Your task to perform on an android device: change the clock display to analog Image 0: 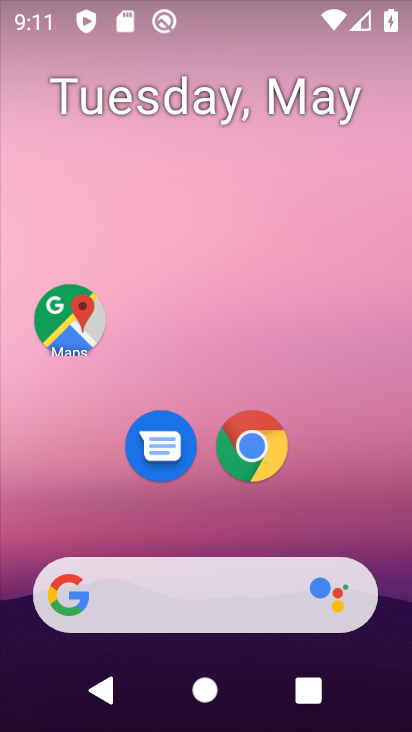
Step 0: drag from (219, 428) to (164, 14)
Your task to perform on an android device: change the clock display to analog Image 1: 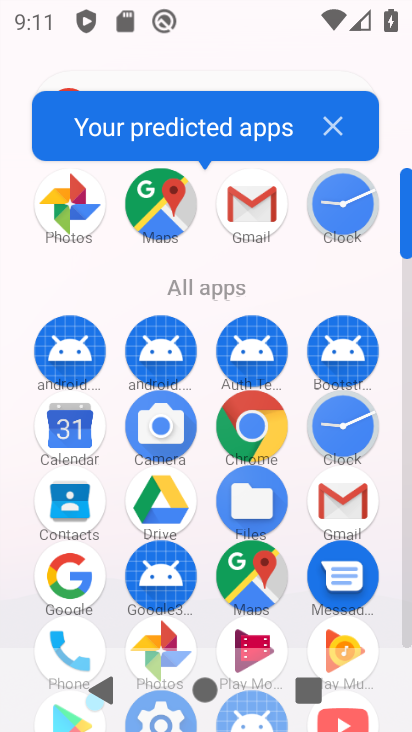
Step 1: click (353, 429)
Your task to perform on an android device: change the clock display to analog Image 2: 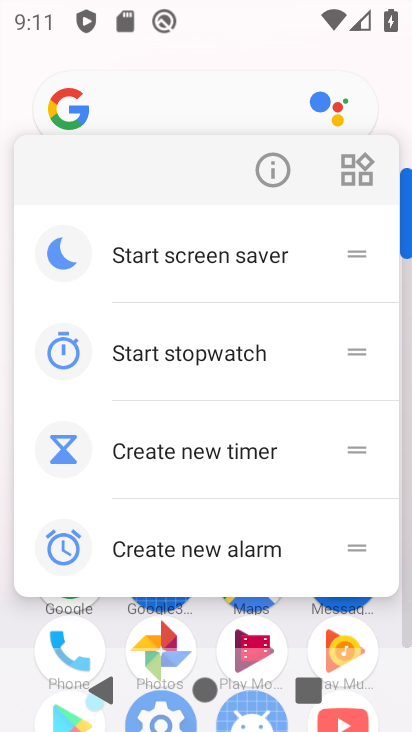
Step 2: press back button
Your task to perform on an android device: change the clock display to analog Image 3: 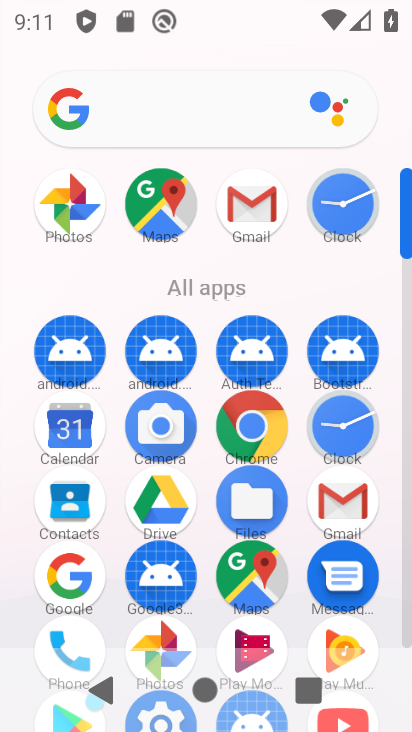
Step 3: click (345, 203)
Your task to perform on an android device: change the clock display to analog Image 4: 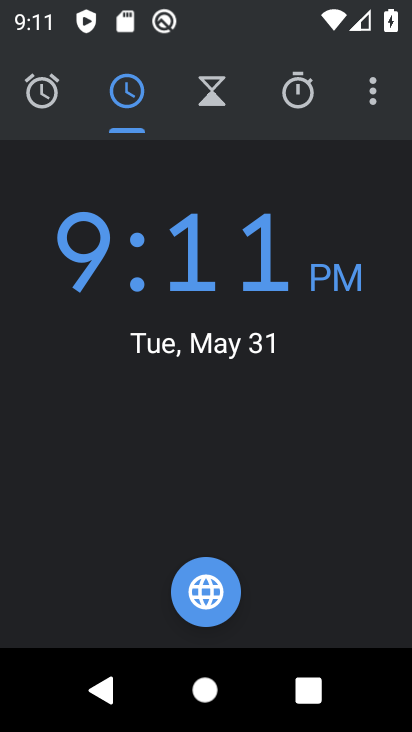
Step 4: click (374, 90)
Your task to perform on an android device: change the clock display to analog Image 5: 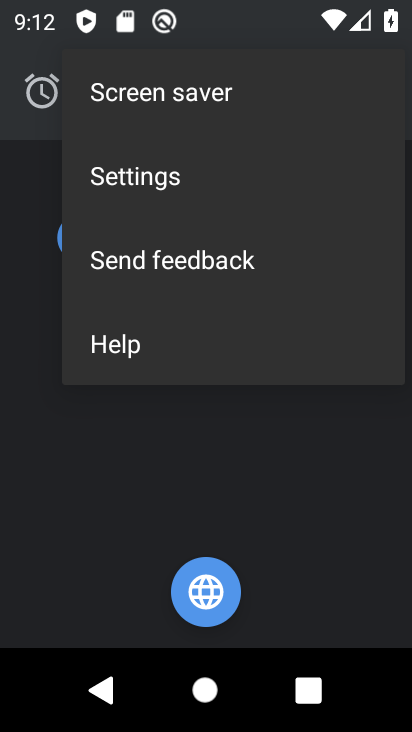
Step 5: click (209, 163)
Your task to perform on an android device: change the clock display to analog Image 6: 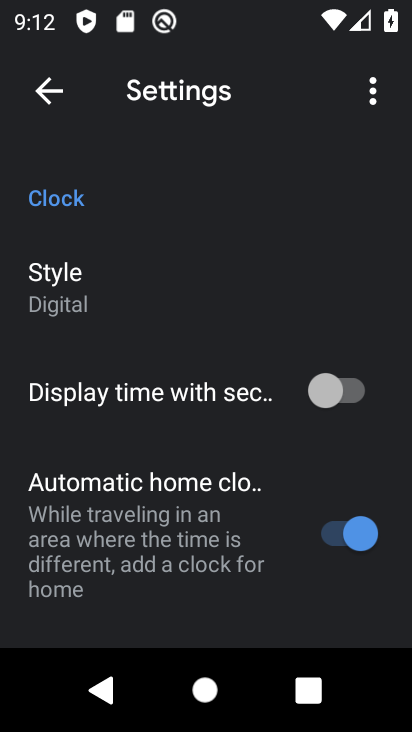
Step 6: click (115, 288)
Your task to perform on an android device: change the clock display to analog Image 7: 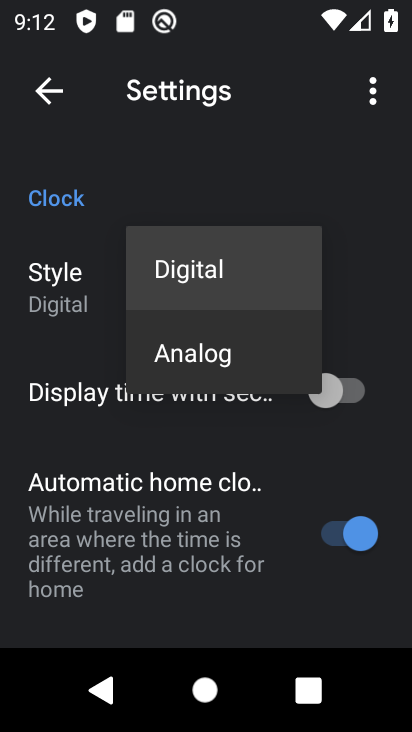
Step 7: click (170, 342)
Your task to perform on an android device: change the clock display to analog Image 8: 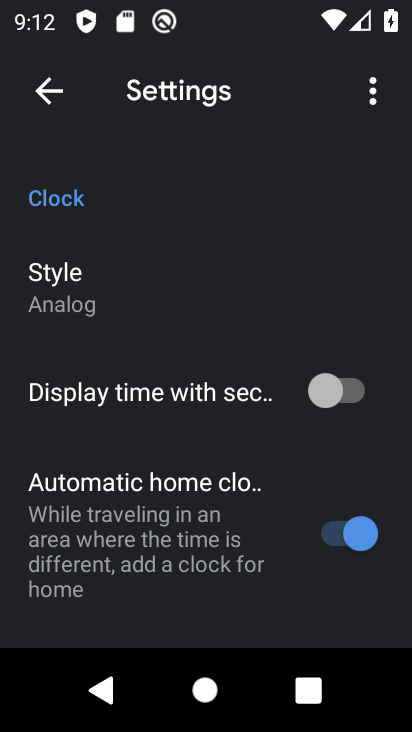
Step 8: task complete